Your task to perform on an android device: What is the recent news? Image 0: 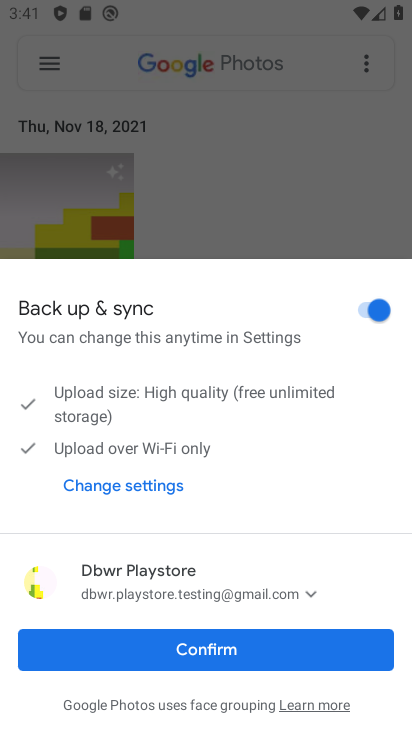
Step 0: click (260, 646)
Your task to perform on an android device: What is the recent news? Image 1: 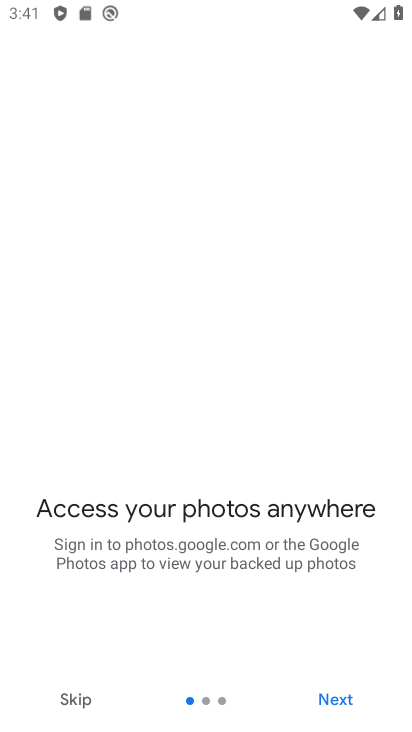
Step 1: click (331, 696)
Your task to perform on an android device: What is the recent news? Image 2: 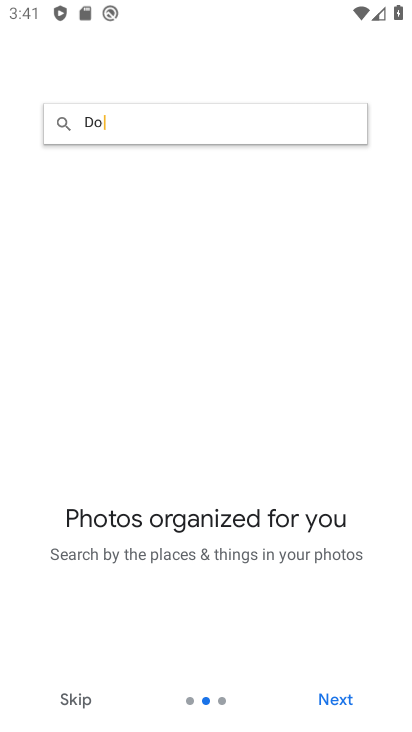
Step 2: click (331, 696)
Your task to perform on an android device: What is the recent news? Image 3: 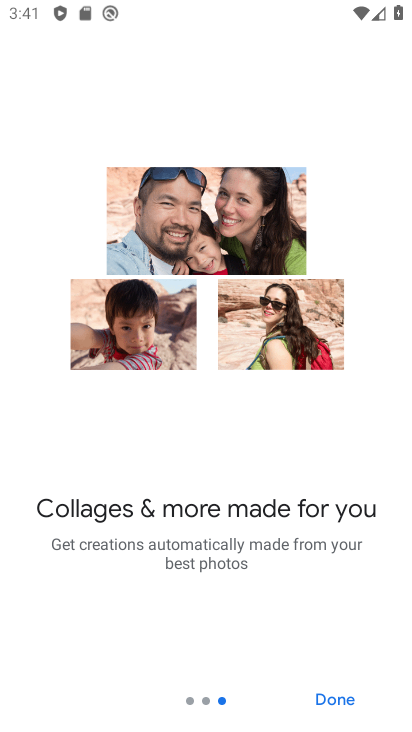
Step 3: press home button
Your task to perform on an android device: What is the recent news? Image 4: 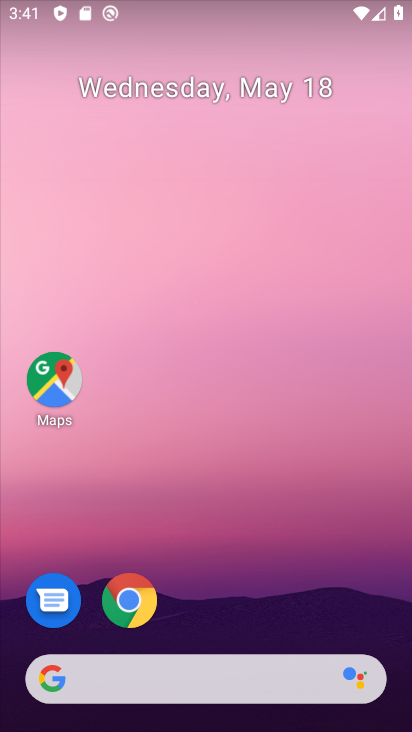
Step 4: click (152, 616)
Your task to perform on an android device: What is the recent news? Image 5: 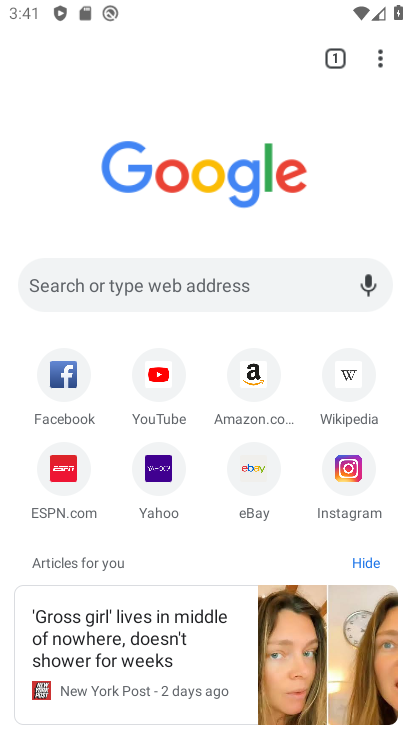
Step 5: click (378, 54)
Your task to perform on an android device: What is the recent news? Image 6: 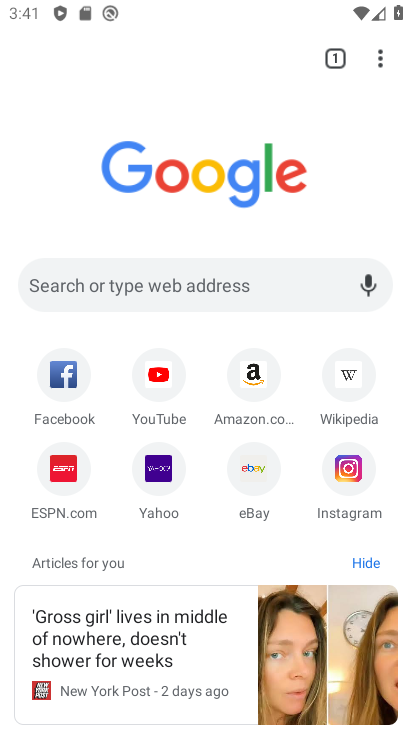
Step 6: click (174, 276)
Your task to perform on an android device: What is the recent news? Image 7: 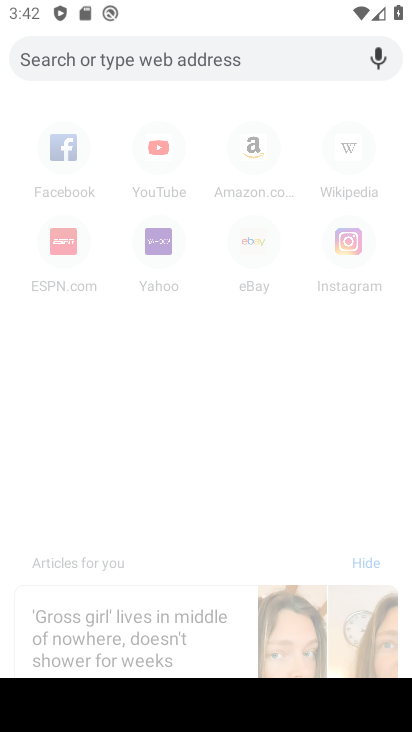
Step 7: type "What is the recent news?"
Your task to perform on an android device: What is the recent news? Image 8: 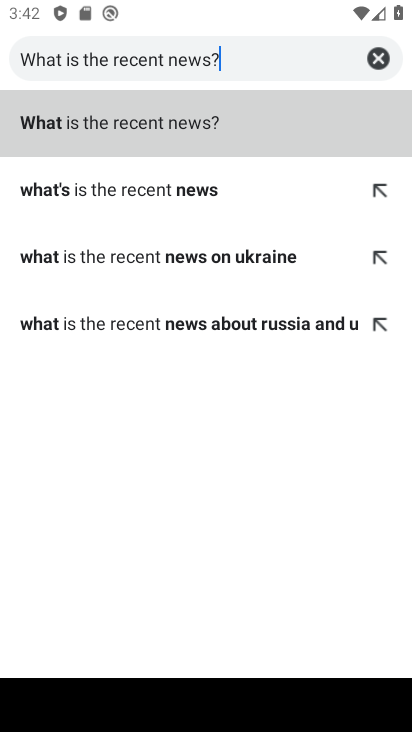
Step 8: click (161, 122)
Your task to perform on an android device: What is the recent news? Image 9: 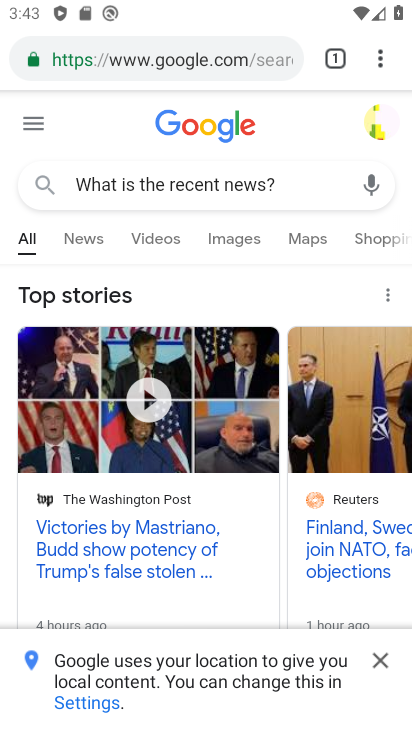
Step 9: click (380, 658)
Your task to perform on an android device: What is the recent news? Image 10: 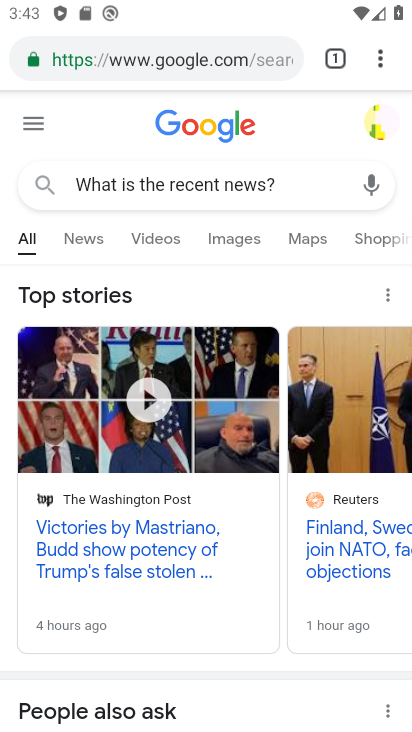
Step 10: task complete